Your task to perform on an android device: move an email to a new category in the gmail app Image 0: 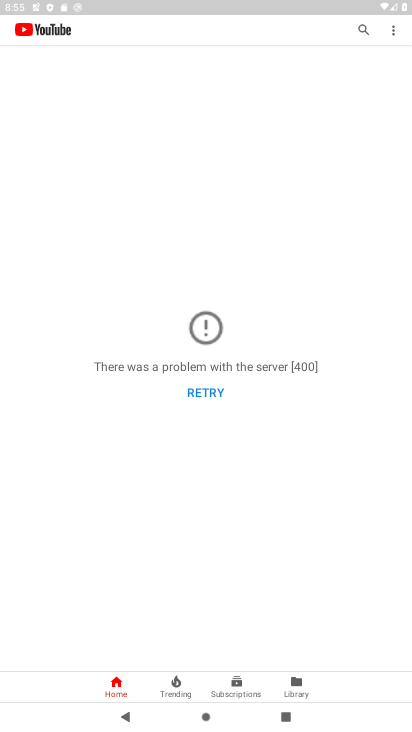
Step 0: press home button
Your task to perform on an android device: move an email to a new category in the gmail app Image 1: 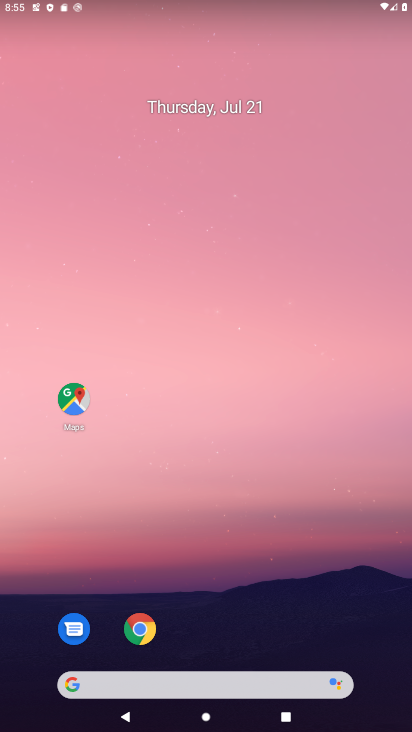
Step 1: drag from (266, 616) to (234, 80)
Your task to perform on an android device: move an email to a new category in the gmail app Image 2: 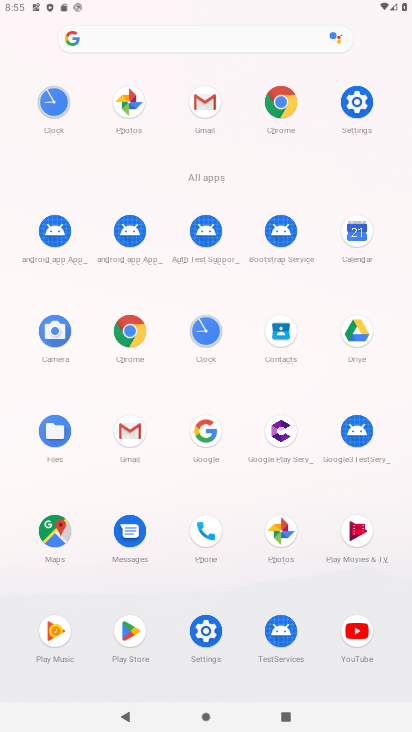
Step 2: click (214, 108)
Your task to perform on an android device: move an email to a new category in the gmail app Image 3: 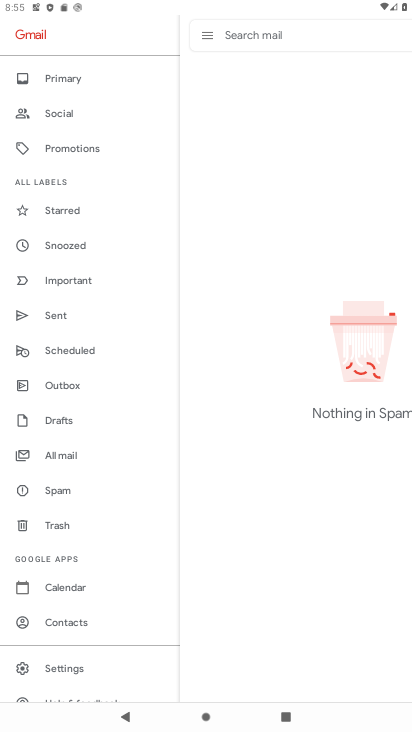
Step 3: click (78, 455)
Your task to perform on an android device: move an email to a new category in the gmail app Image 4: 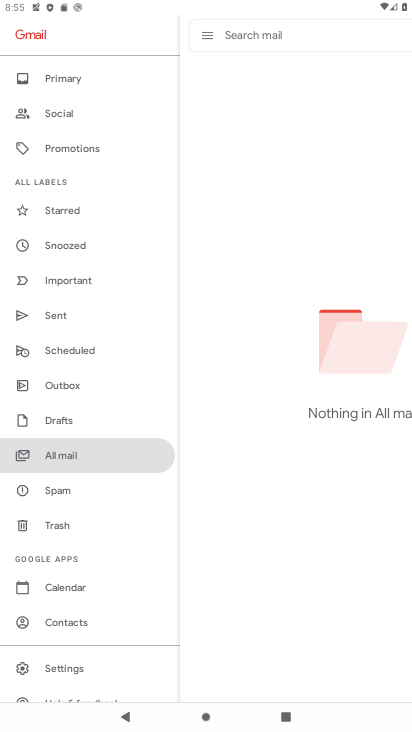
Step 4: task complete